Your task to perform on an android device: Open Maps and search for coffee Image 0: 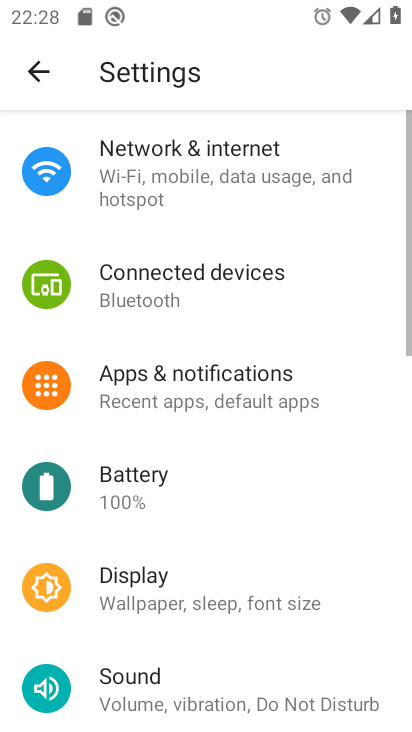
Step 0: press home button
Your task to perform on an android device: Open Maps and search for coffee Image 1: 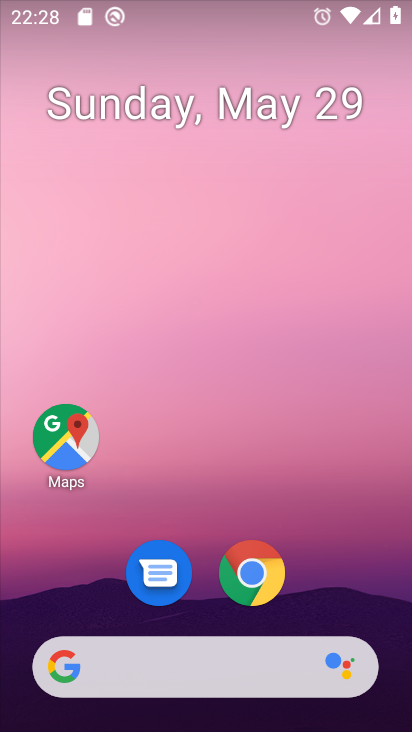
Step 1: click (57, 447)
Your task to perform on an android device: Open Maps and search for coffee Image 2: 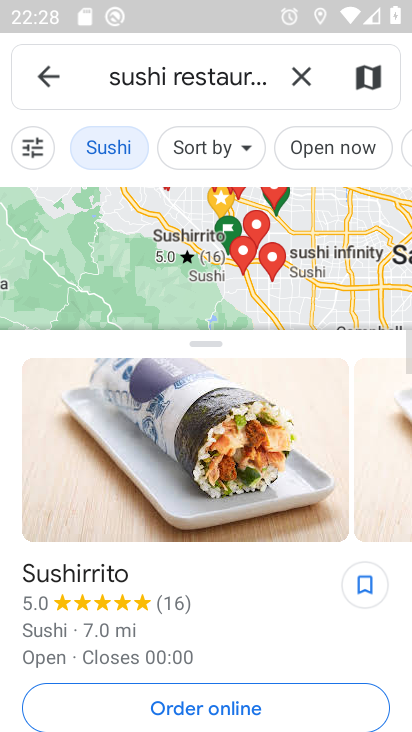
Step 2: click (301, 70)
Your task to perform on an android device: Open Maps and search for coffee Image 3: 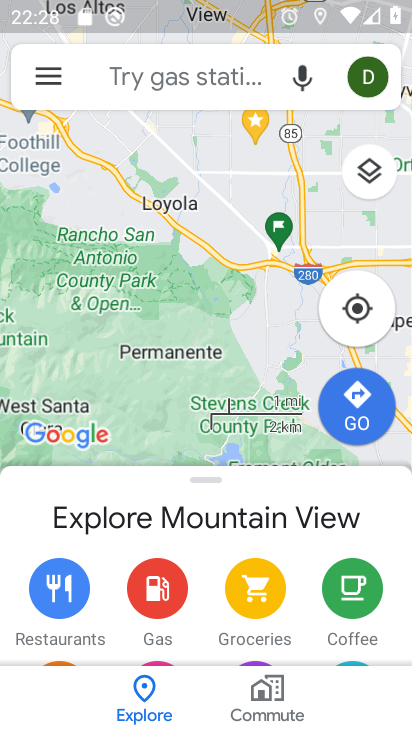
Step 3: click (196, 73)
Your task to perform on an android device: Open Maps and search for coffee Image 4: 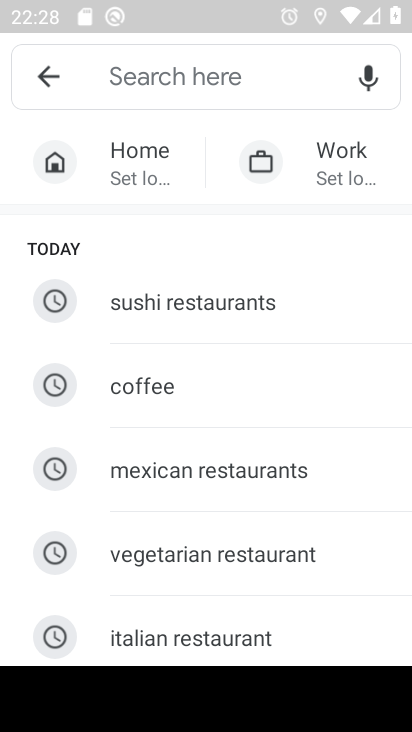
Step 4: click (161, 373)
Your task to perform on an android device: Open Maps and search for coffee Image 5: 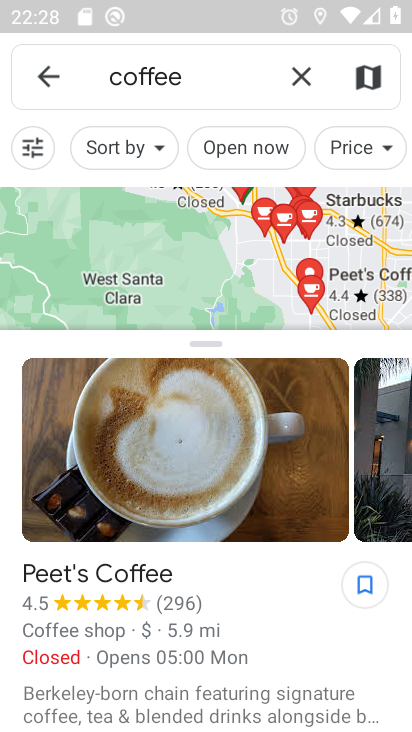
Step 5: task complete